Your task to perform on an android device: Open Google Image 0: 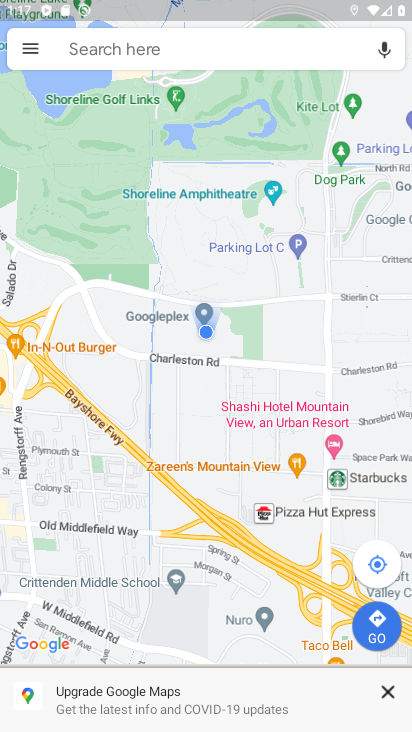
Step 0: press home button
Your task to perform on an android device: Open Google Image 1: 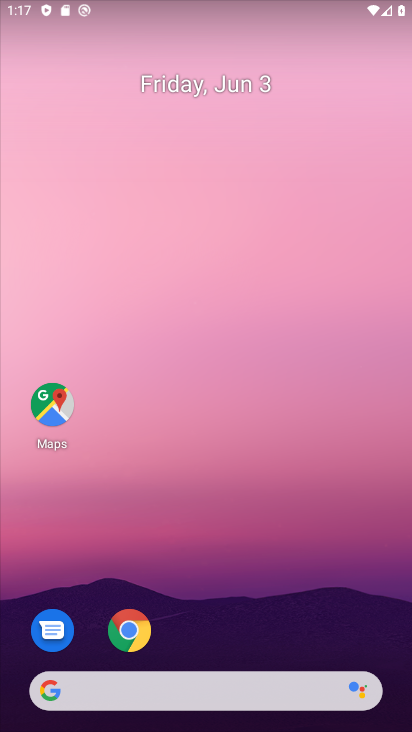
Step 1: drag from (208, 729) to (213, 95)
Your task to perform on an android device: Open Google Image 2: 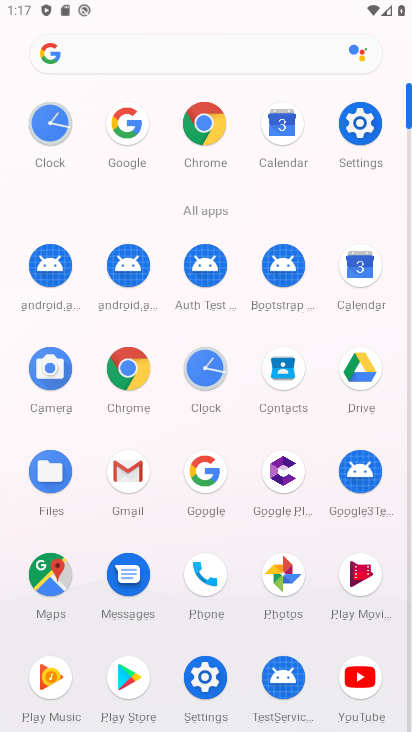
Step 2: click (206, 472)
Your task to perform on an android device: Open Google Image 3: 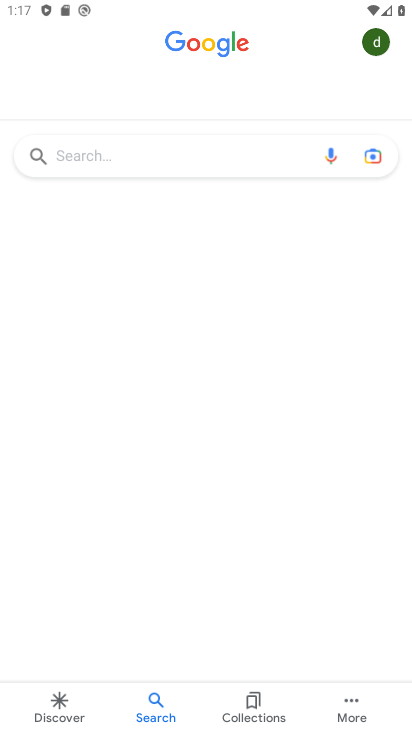
Step 3: task complete